Your task to perform on an android device: check storage Image 0: 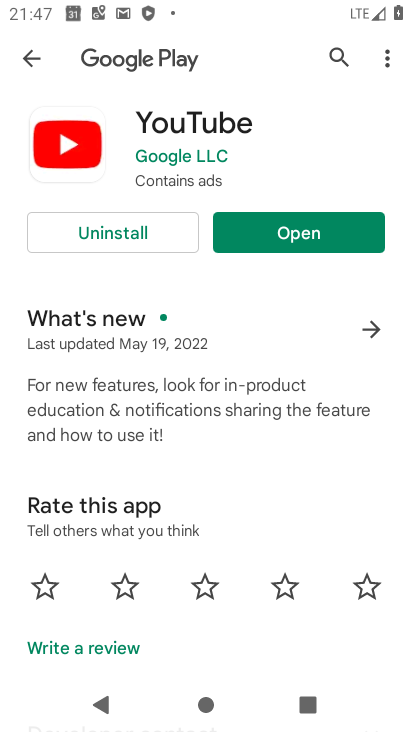
Step 0: press home button
Your task to perform on an android device: check storage Image 1: 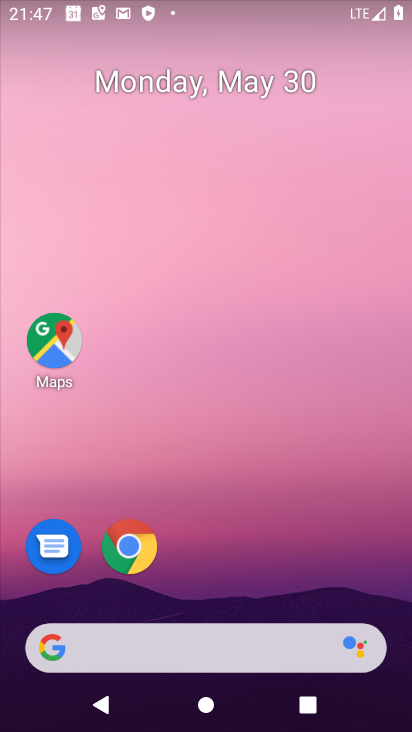
Step 1: drag from (365, 555) to (348, 88)
Your task to perform on an android device: check storage Image 2: 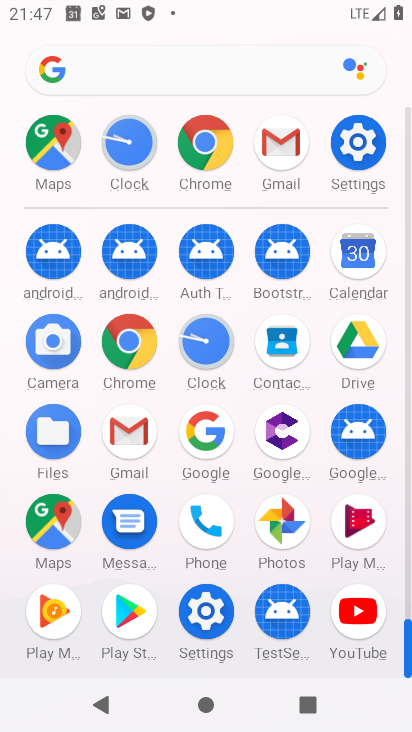
Step 2: click (216, 628)
Your task to perform on an android device: check storage Image 3: 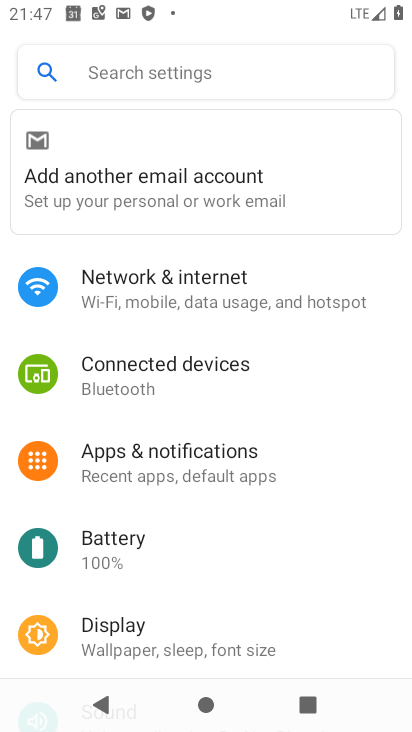
Step 3: drag from (197, 589) to (242, 250)
Your task to perform on an android device: check storage Image 4: 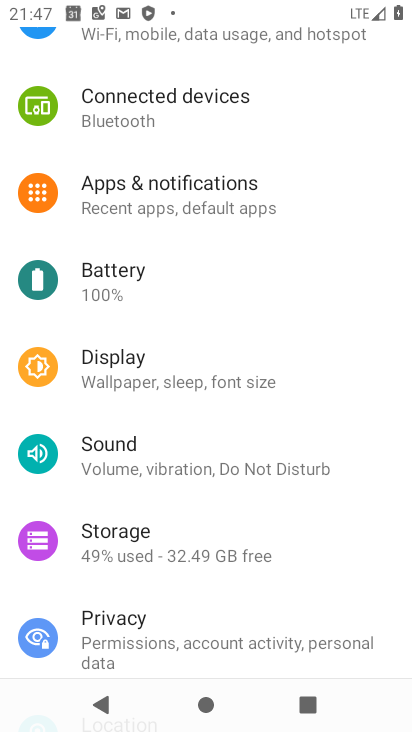
Step 4: click (143, 543)
Your task to perform on an android device: check storage Image 5: 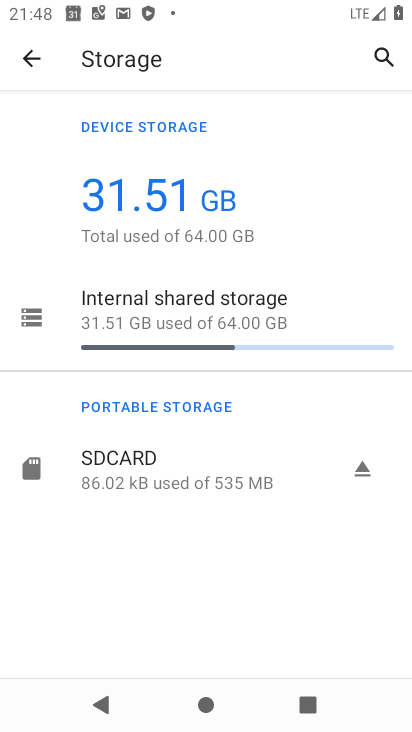
Step 5: click (35, 311)
Your task to perform on an android device: check storage Image 6: 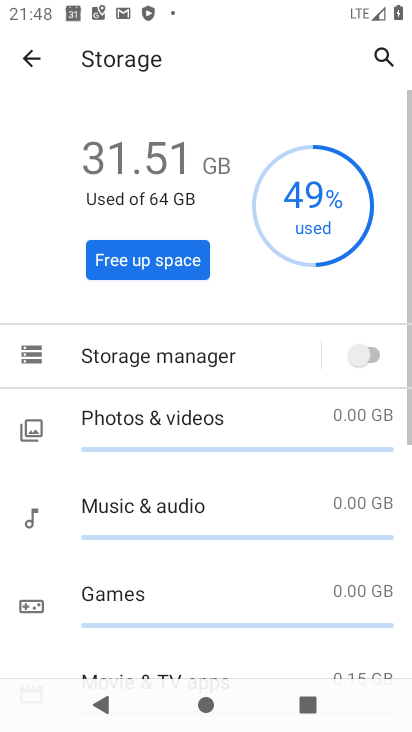
Step 6: task complete